Your task to perform on an android device: open app "YouTube Kids" Image 0: 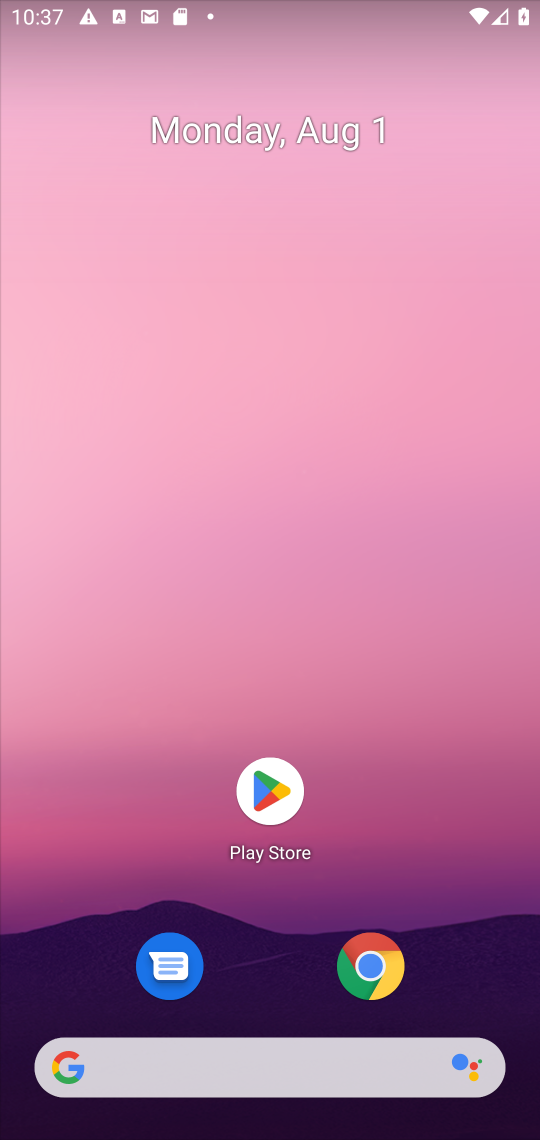
Step 0: drag from (508, 1042) to (426, 207)
Your task to perform on an android device: open app "YouTube Kids" Image 1: 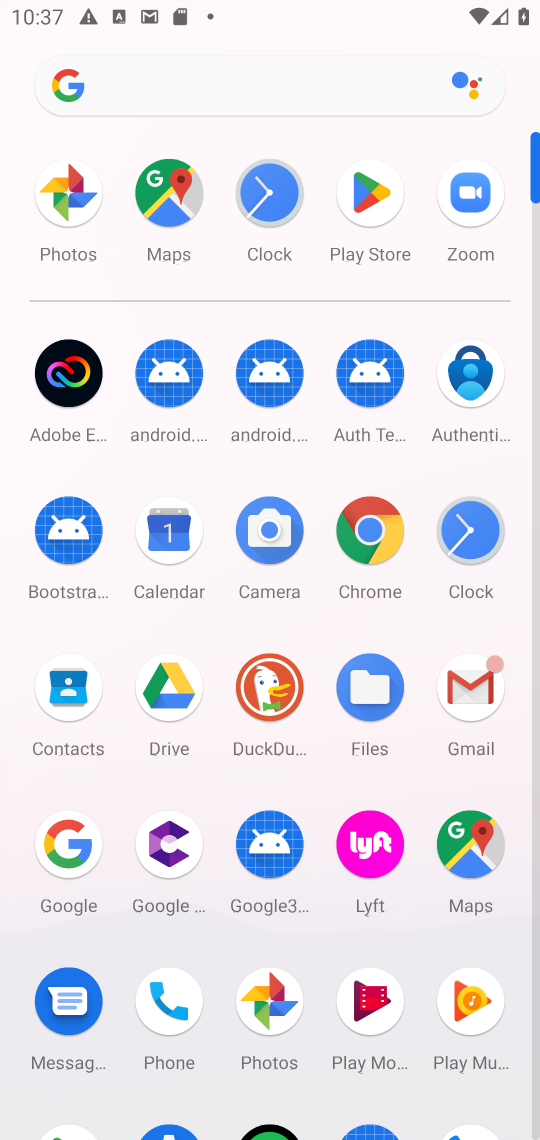
Step 1: drag from (408, 1095) to (396, 603)
Your task to perform on an android device: open app "YouTube Kids" Image 2: 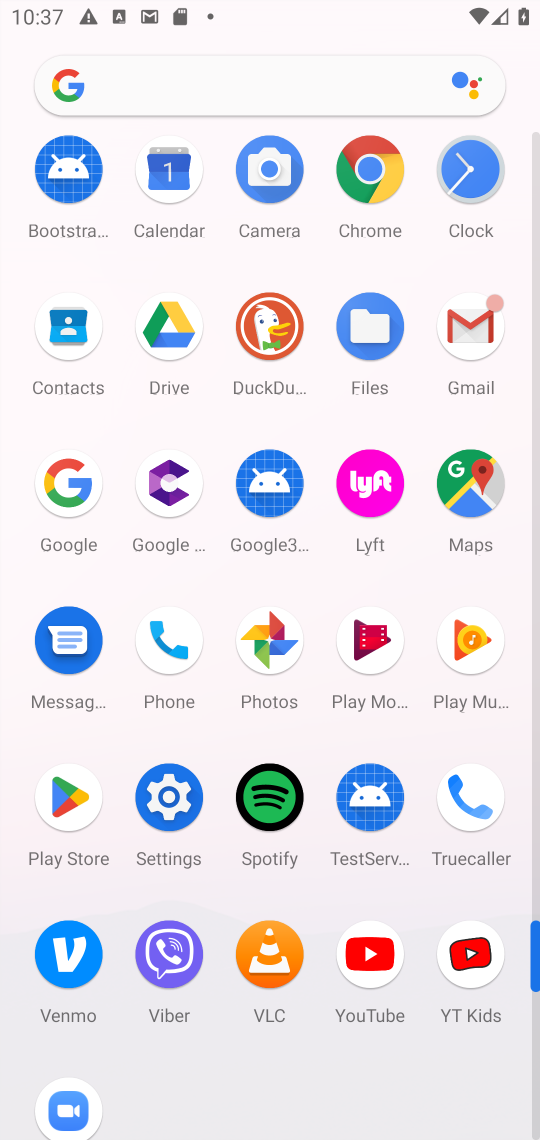
Step 2: click (461, 960)
Your task to perform on an android device: open app "YouTube Kids" Image 3: 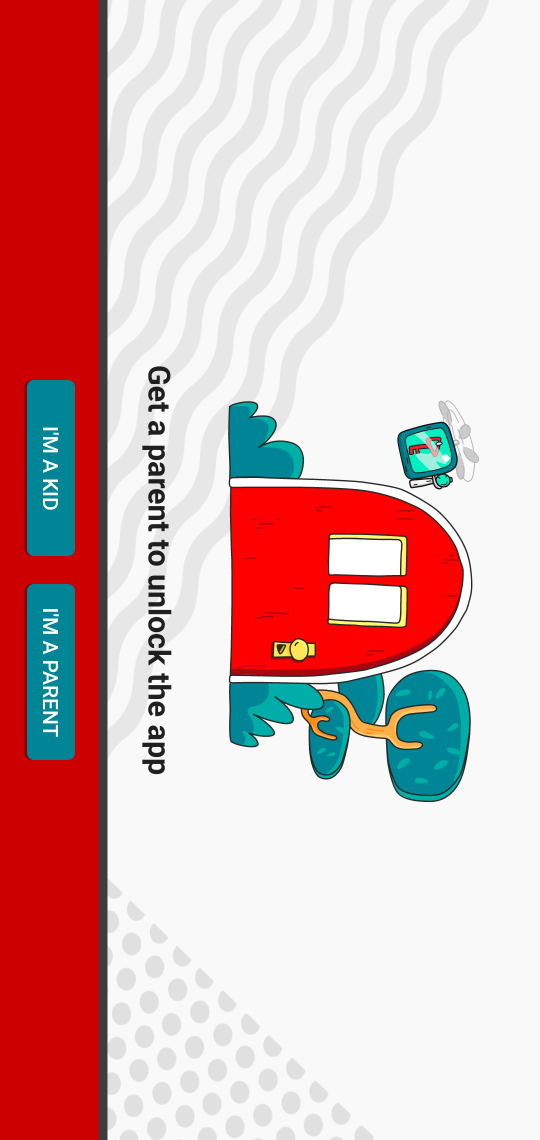
Step 3: task complete